Your task to perform on an android device: turn notification dots on Image 0: 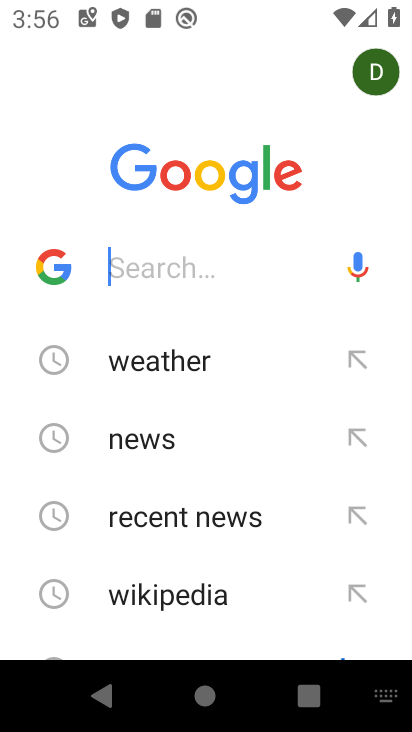
Step 0: press home button
Your task to perform on an android device: turn notification dots on Image 1: 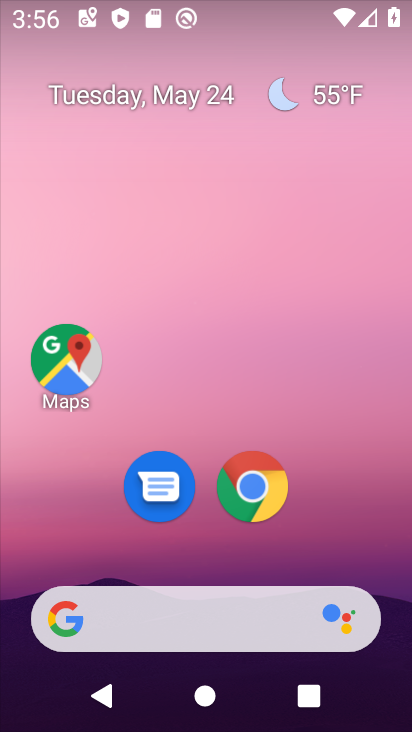
Step 1: drag from (320, 459) to (275, 189)
Your task to perform on an android device: turn notification dots on Image 2: 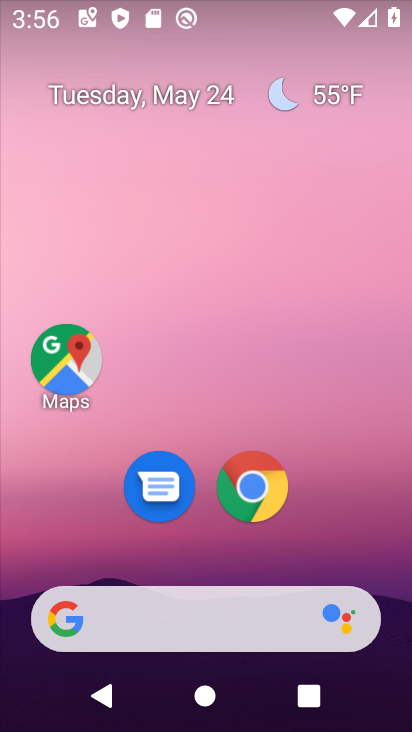
Step 2: drag from (307, 444) to (250, 58)
Your task to perform on an android device: turn notification dots on Image 3: 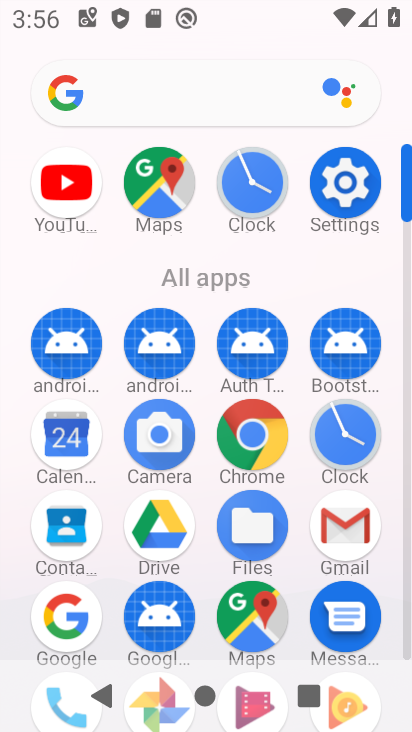
Step 3: click (339, 170)
Your task to perform on an android device: turn notification dots on Image 4: 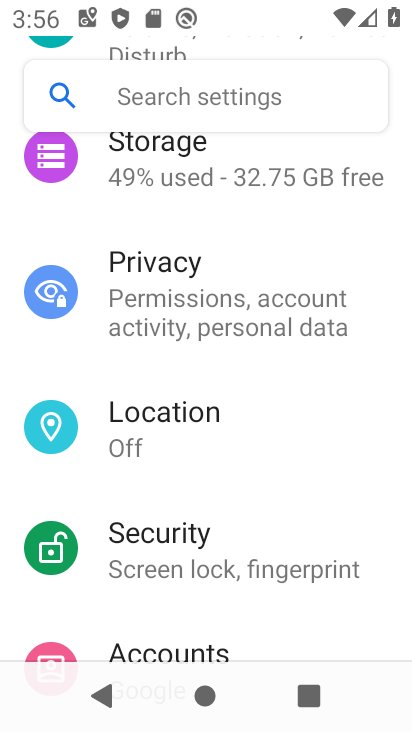
Step 4: drag from (238, 464) to (206, 227)
Your task to perform on an android device: turn notification dots on Image 5: 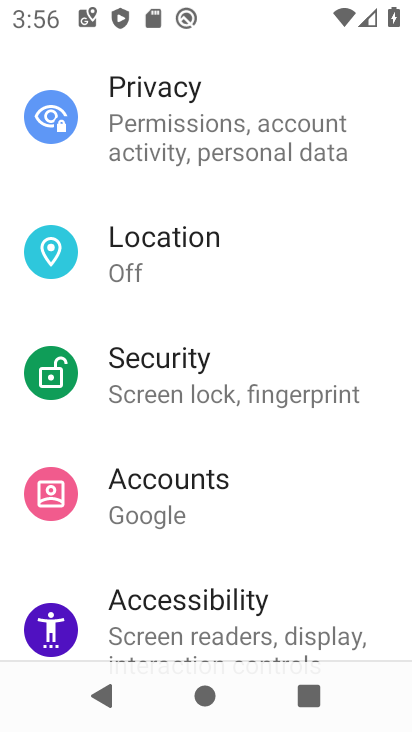
Step 5: drag from (231, 460) to (184, 194)
Your task to perform on an android device: turn notification dots on Image 6: 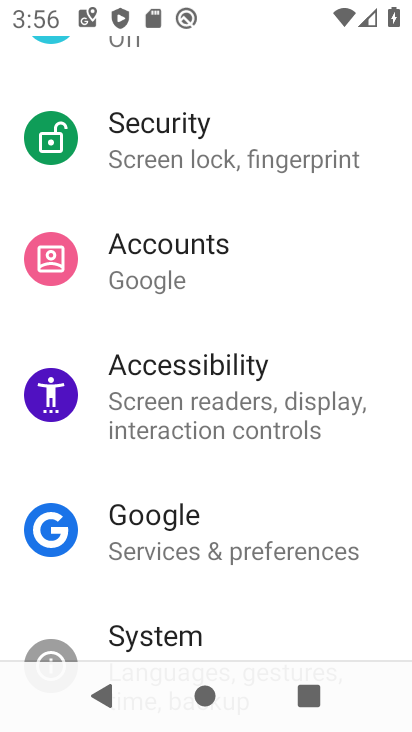
Step 6: drag from (179, 220) to (374, 527)
Your task to perform on an android device: turn notification dots on Image 7: 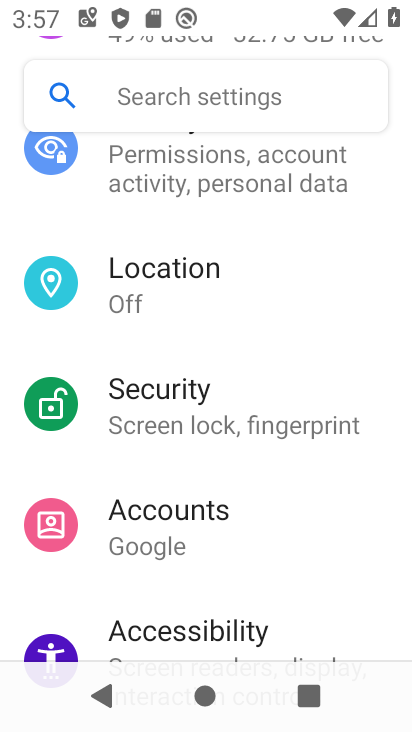
Step 7: drag from (310, 257) to (366, 553)
Your task to perform on an android device: turn notification dots on Image 8: 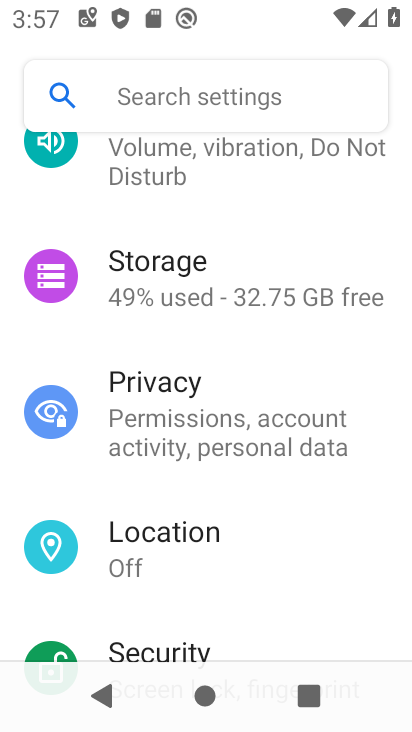
Step 8: drag from (183, 226) to (265, 520)
Your task to perform on an android device: turn notification dots on Image 9: 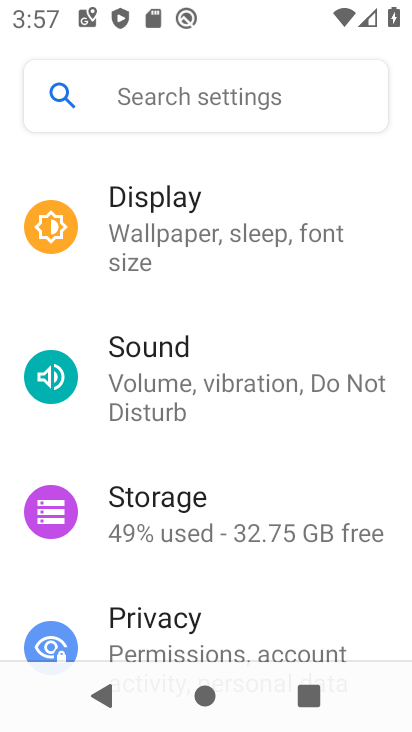
Step 9: drag from (151, 258) to (232, 529)
Your task to perform on an android device: turn notification dots on Image 10: 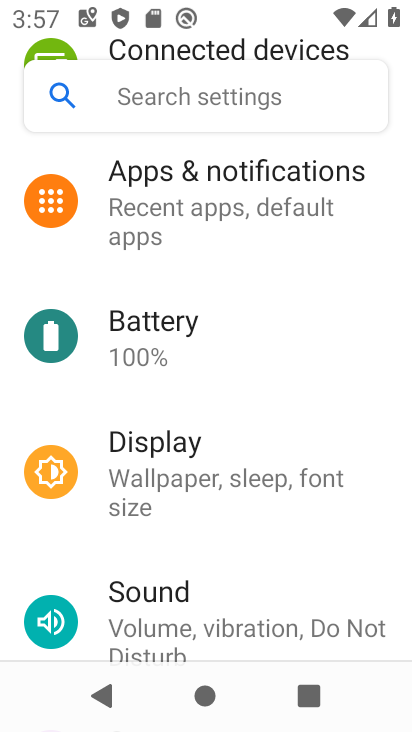
Step 10: click (115, 210)
Your task to perform on an android device: turn notification dots on Image 11: 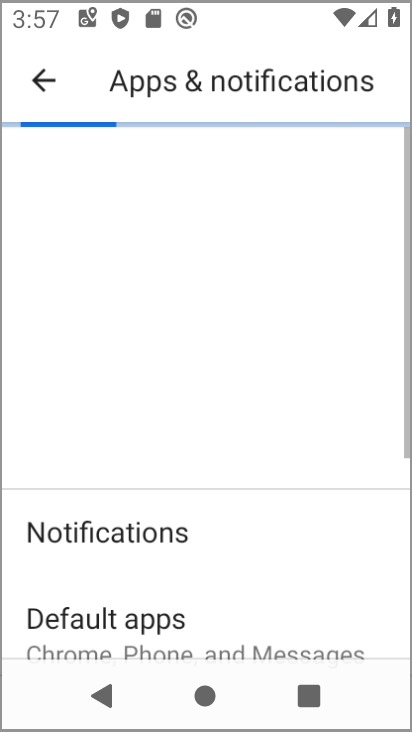
Step 11: click (115, 210)
Your task to perform on an android device: turn notification dots on Image 12: 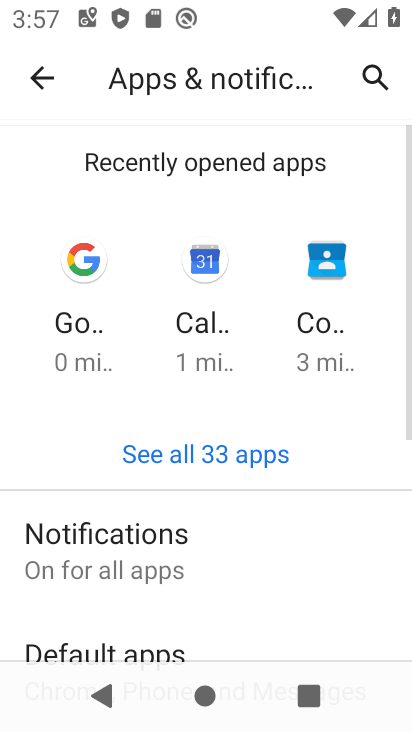
Step 12: drag from (144, 545) to (84, 215)
Your task to perform on an android device: turn notification dots on Image 13: 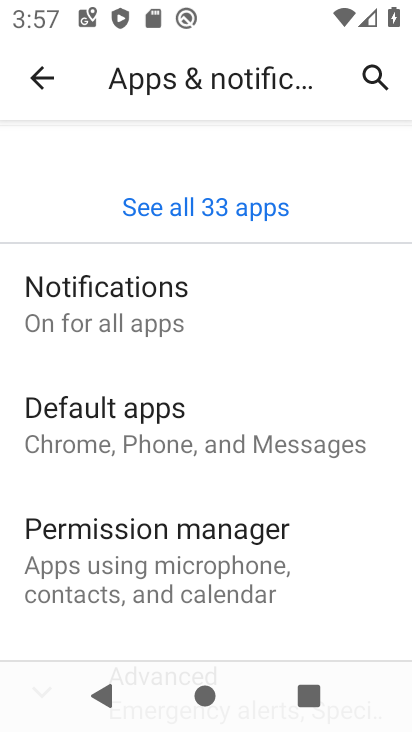
Step 13: drag from (238, 418) to (161, 159)
Your task to perform on an android device: turn notification dots on Image 14: 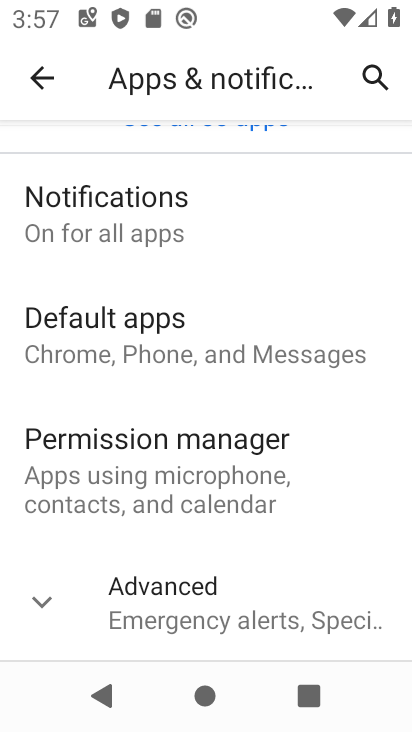
Step 14: click (271, 576)
Your task to perform on an android device: turn notification dots on Image 15: 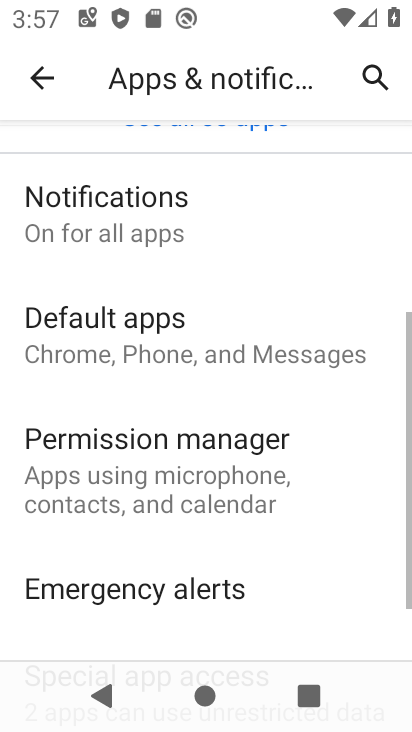
Step 15: drag from (217, 522) to (153, 279)
Your task to perform on an android device: turn notification dots on Image 16: 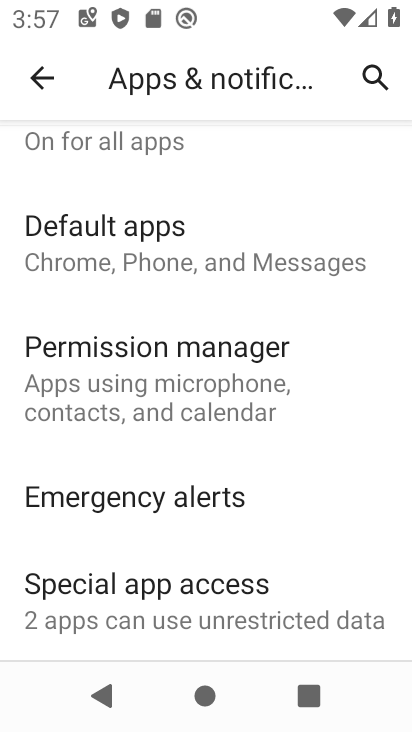
Step 16: drag from (292, 519) to (199, 289)
Your task to perform on an android device: turn notification dots on Image 17: 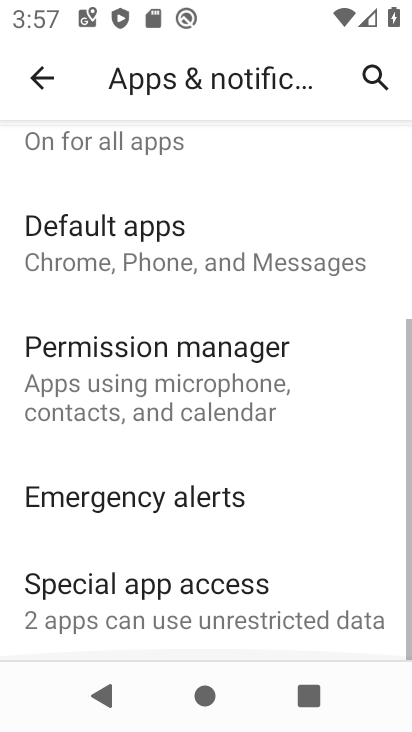
Step 17: drag from (247, 260) to (377, 554)
Your task to perform on an android device: turn notification dots on Image 18: 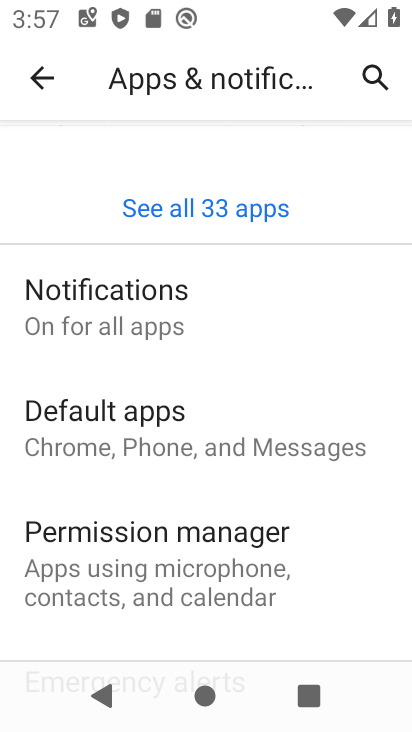
Step 18: click (216, 302)
Your task to perform on an android device: turn notification dots on Image 19: 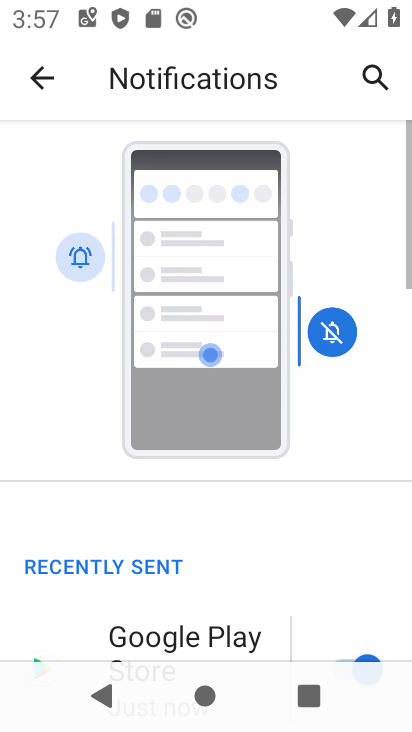
Step 19: drag from (235, 487) to (122, 167)
Your task to perform on an android device: turn notification dots on Image 20: 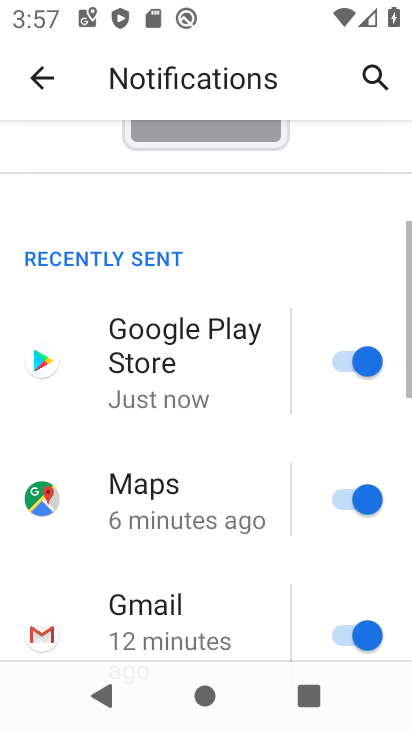
Step 20: drag from (109, 286) to (98, 190)
Your task to perform on an android device: turn notification dots on Image 21: 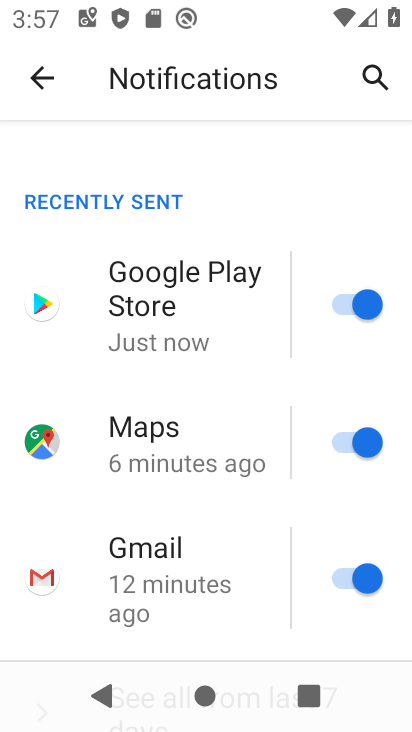
Step 21: drag from (167, 545) to (90, 194)
Your task to perform on an android device: turn notification dots on Image 22: 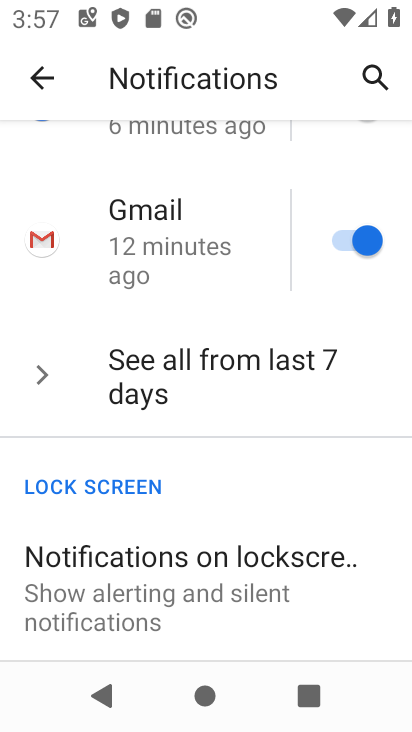
Step 22: drag from (238, 550) to (172, 175)
Your task to perform on an android device: turn notification dots on Image 23: 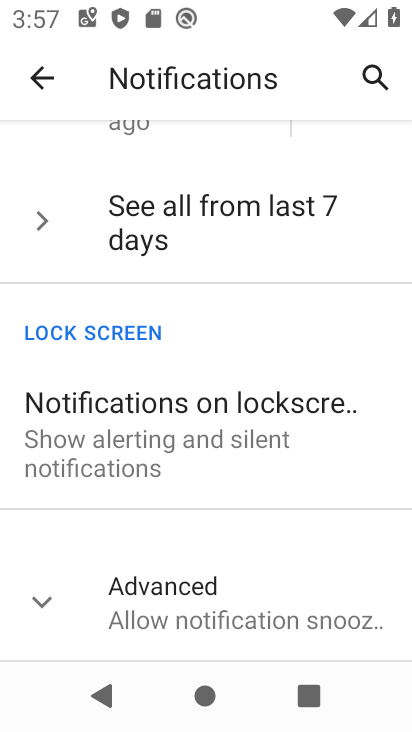
Step 23: click (238, 581)
Your task to perform on an android device: turn notification dots on Image 24: 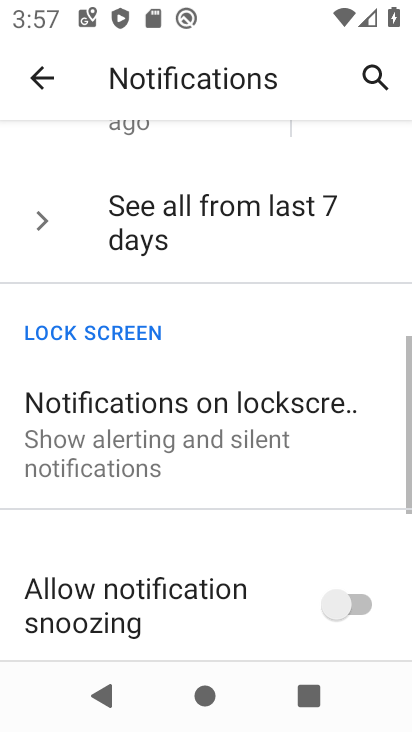
Step 24: drag from (234, 578) to (196, 188)
Your task to perform on an android device: turn notification dots on Image 25: 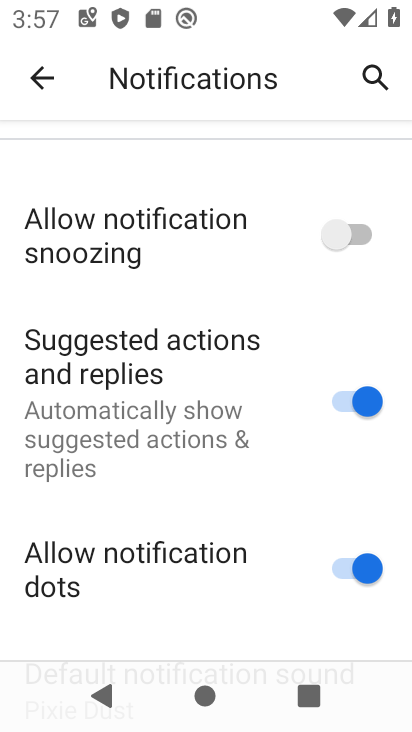
Step 25: drag from (216, 455) to (185, 190)
Your task to perform on an android device: turn notification dots on Image 26: 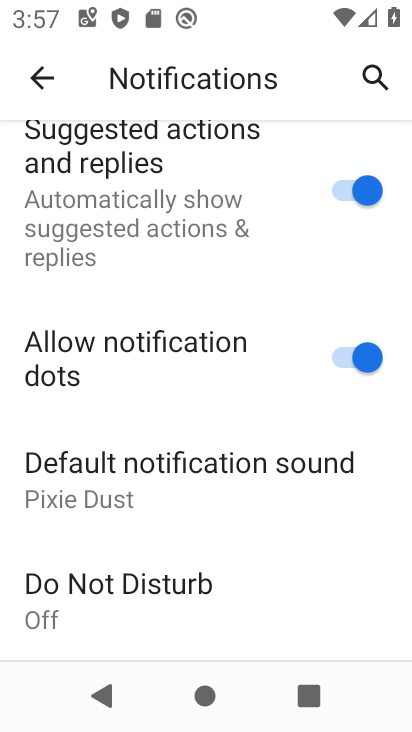
Step 26: click (350, 347)
Your task to perform on an android device: turn notification dots on Image 27: 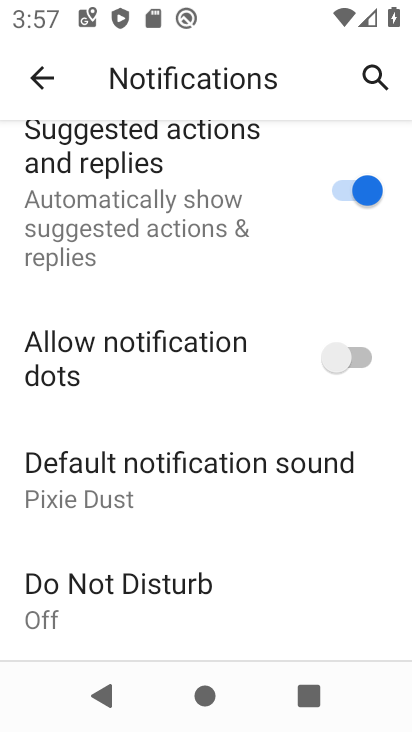
Step 27: click (349, 348)
Your task to perform on an android device: turn notification dots on Image 28: 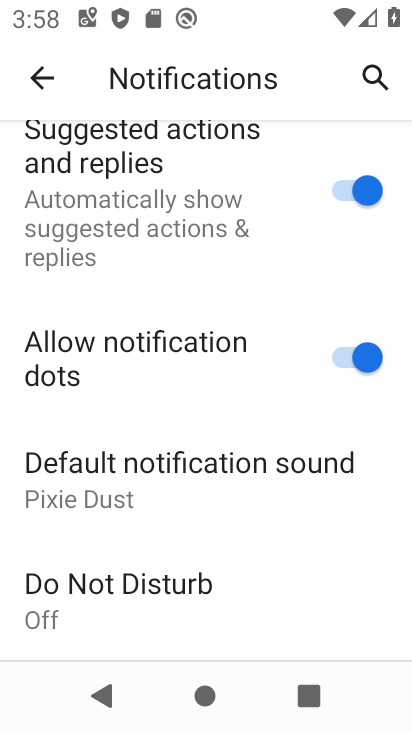
Step 28: task complete